Your task to perform on an android device: change the clock display to digital Image 0: 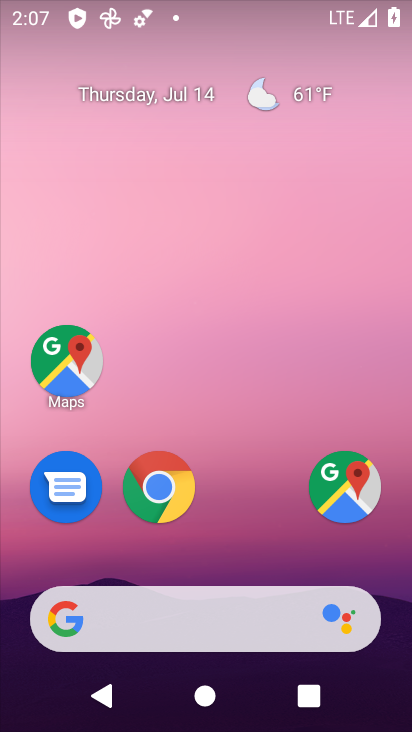
Step 0: drag from (258, 551) to (295, 81)
Your task to perform on an android device: change the clock display to digital Image 1: 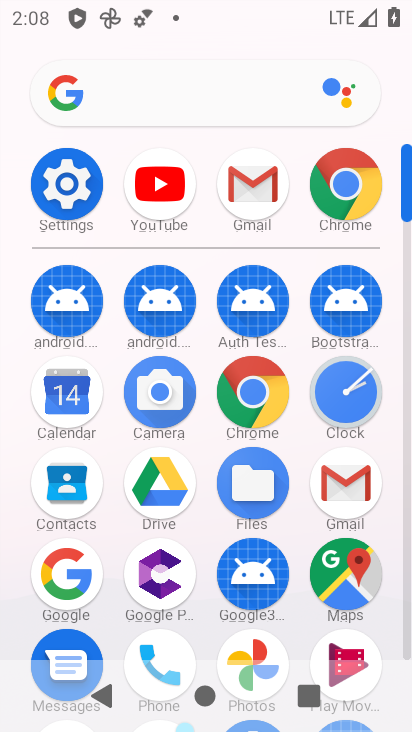
Step 1: click (357, 392)
Your task to perform on an android device: change the clock display to digital Image 2: 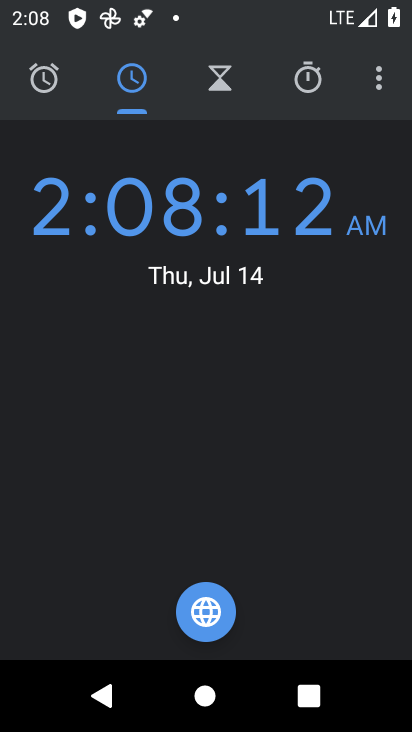
Step 2: click (385, 87)
Your task to perform on an android device: change the clock display to digital Image 3: 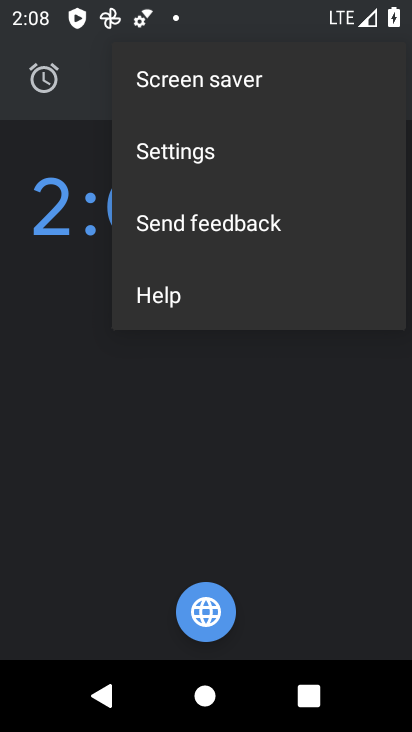
Step 3: click (233, 158)
Your task to perform on an android device: change the clock display to digital Image 4: 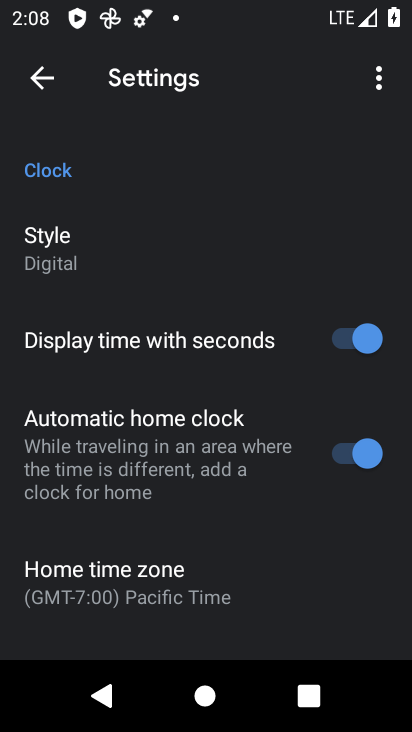
Step 4: task complete